Your task to perform on an android device: Search for vegetarian restaurants on Maps Image 0: 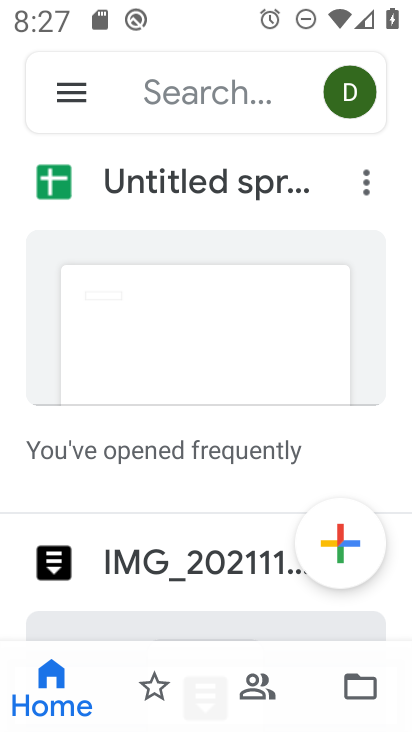
Step 0: press home button
Your task to perform on an android device: Search for vegetarian restaurants on Maps Image 1: 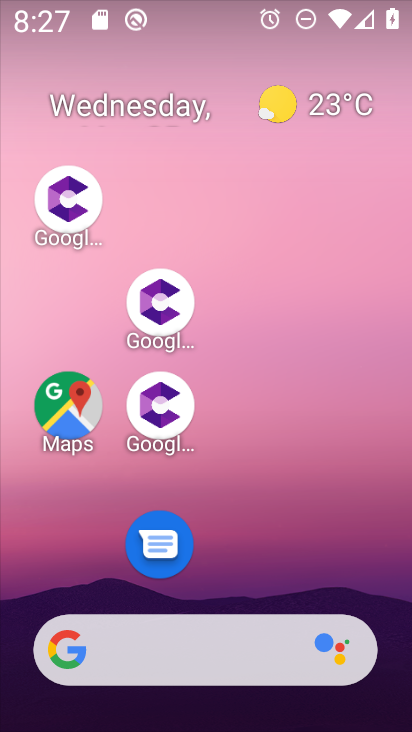
Step 1: click (64, 411)
Your task to perform on an android device: Search for vegetarian restaurants on Maps Image 2: 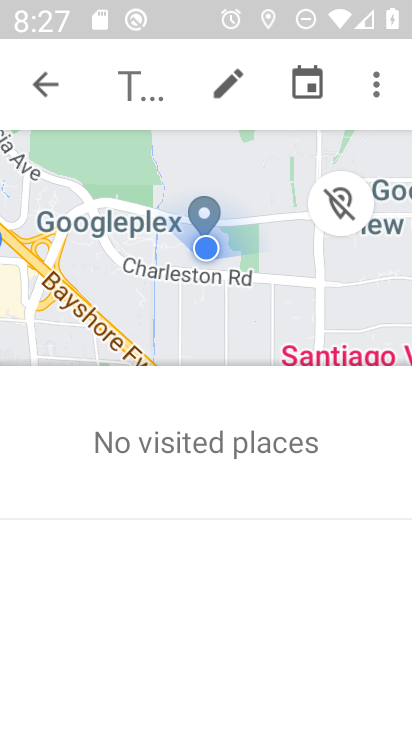
Step 2: click (46, 83)
Your task to perform on an android device: Search for vegetarian restaurants on Maps Image 3: 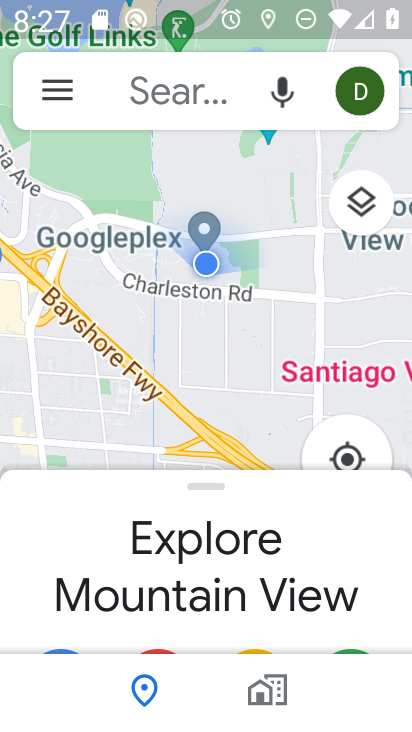
Step 3: click (44, 74)
Your task to perform on an android device: Search for vegetarian restaurants on Maps Image 4: 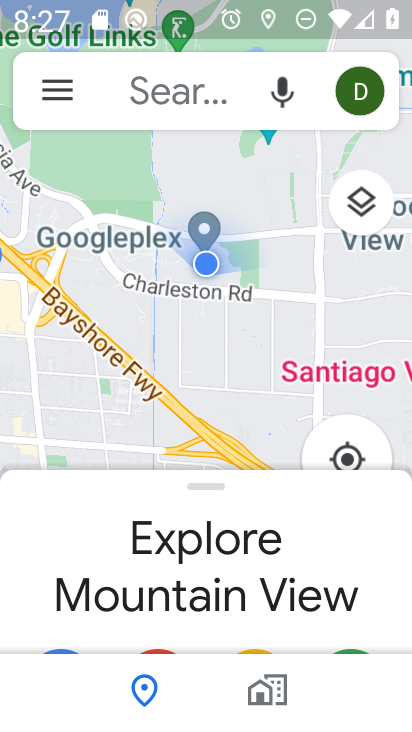
Step 4: click (202, 88)
Your task to perform on an android device: Search for vegetarian restaurants on Maps Image 5: 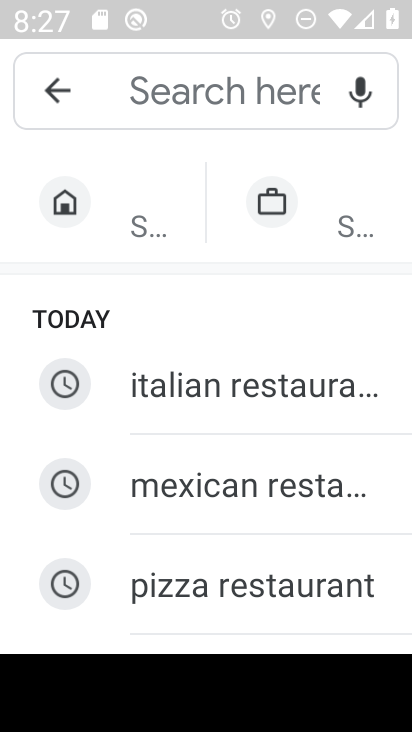
Step 5: type "vegetarian"
Your task to perform on an android device: Search for vegetarian restaurants on Maps Image 6: 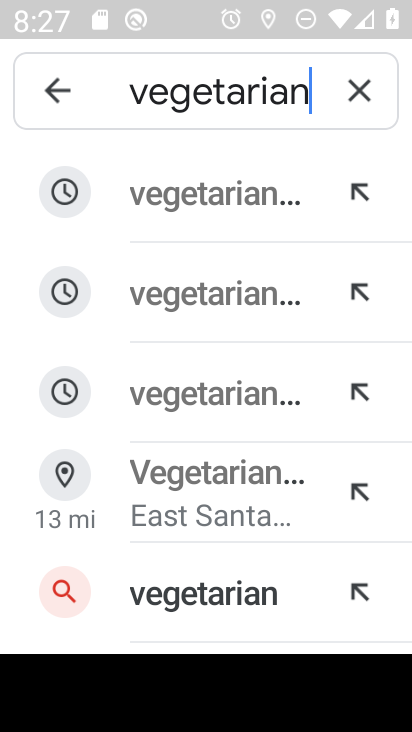
Step 6: click (252, 202)
Your task to perform on an android device: Search for vegetarian restaurants on Maps Image 7: 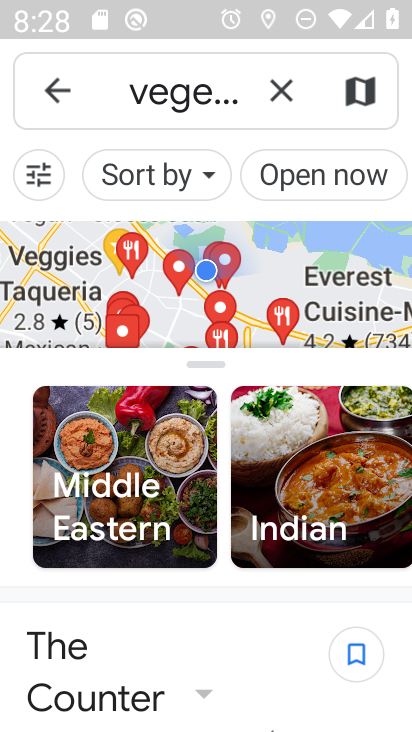
Step 7: task complete